Your task to perform on an android device: create a new album in the google photos Image 0: 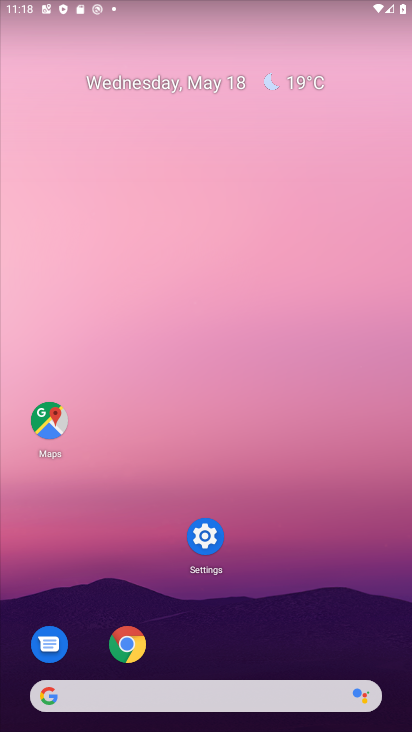
Step 0: drag from (321, 589) to (322, 126)
Your task to perform on an android device: create a new album in the google photos Image 1: 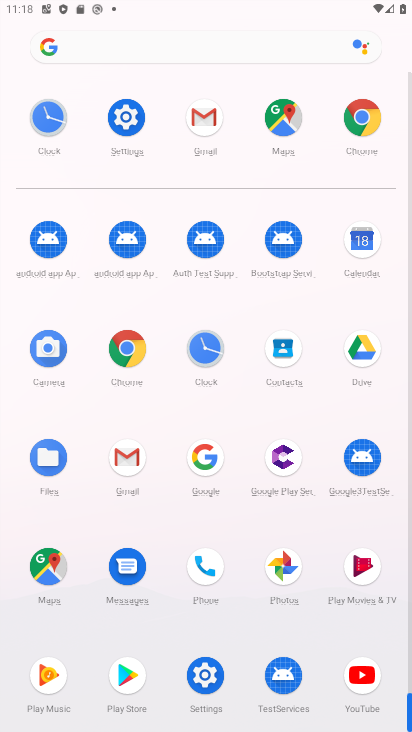
Step 1: click (294, 571)
Your task to perform on an android device: create a new album in the google photos Image 2: 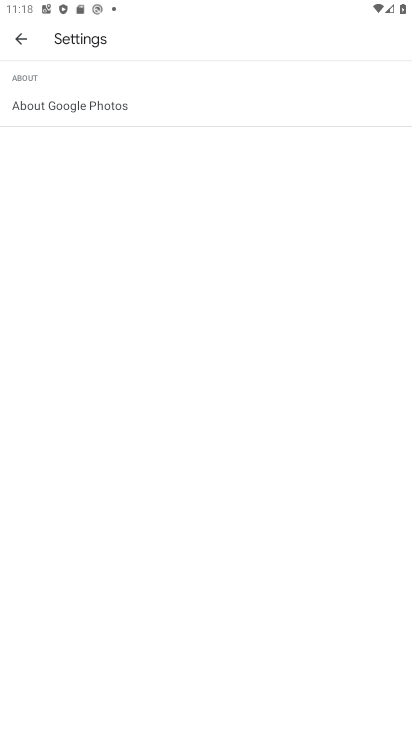
Step 2: click (29, 42)
Your task to perform on an android device: create a new album in the google photos Image 3: 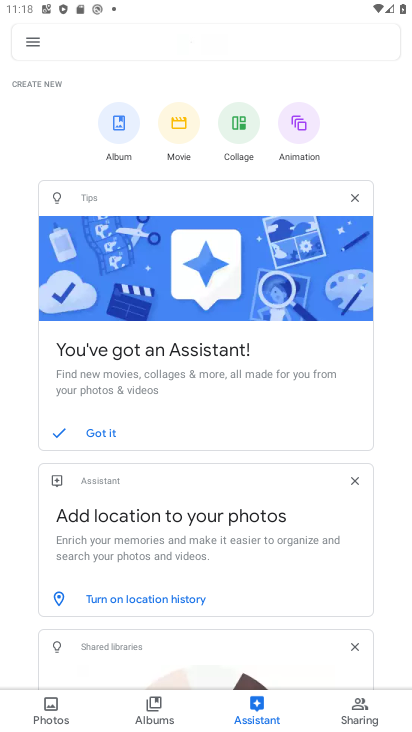
Step 3: click (35, 48)
Your task to perform on an android device: create a new album in the google photos Image 4: 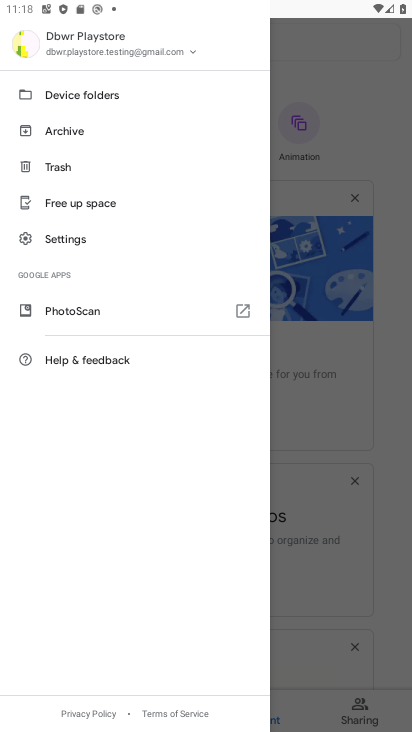
Step 4: click (356, 289)
Your task to perform on an android device: create a new album in the google photos Image 5: 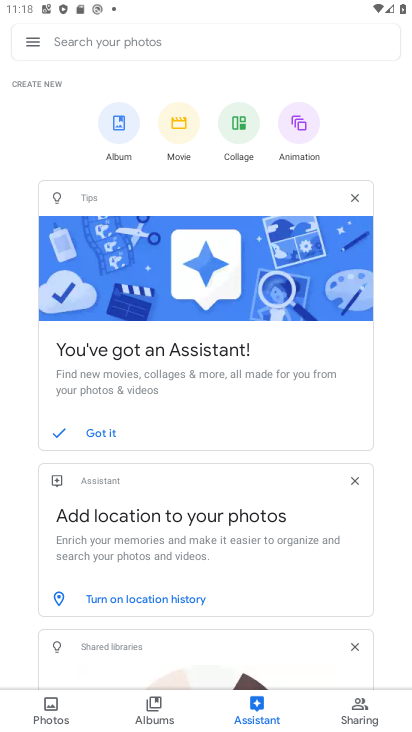
Step 5: click (152, 713)
Your task to perform on an android device: create a new album in the google photos Image 6: 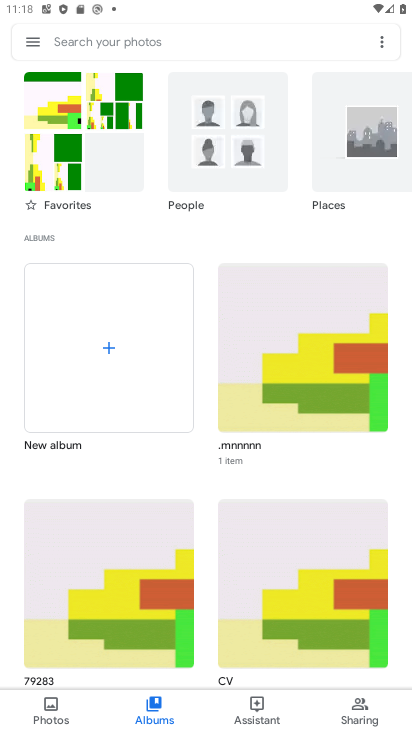
Step 6: click (108, 392)
Your task to perform on an android device: create a new album in the google photos Image 7: 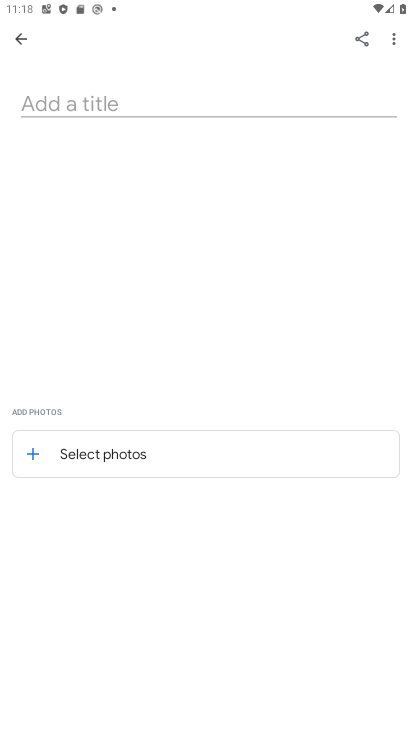
Step 7: click (241, 108)
Your task to perform on an android device: create a new album in the google photos Image 8: 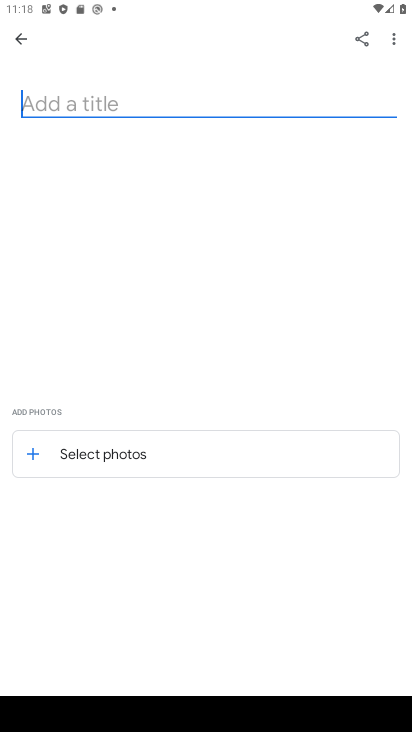
Step 8: type "janebhidoyaro"
Your task to perform on an android device: create a new album in the google photos Image 9: 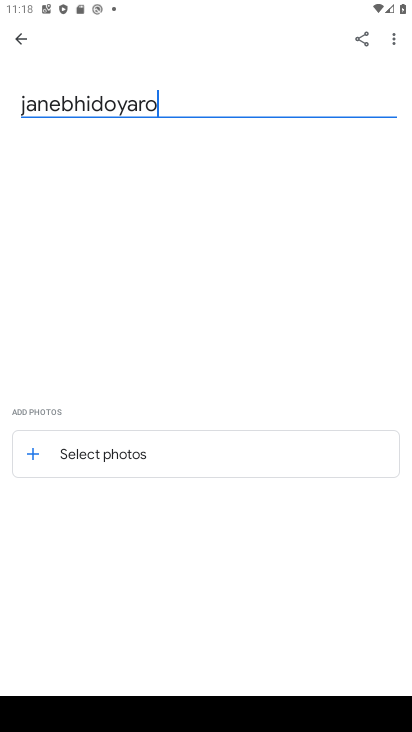
Step 9: type ""
Your task to perform on an android device: create a new album in the google photos Image 10: 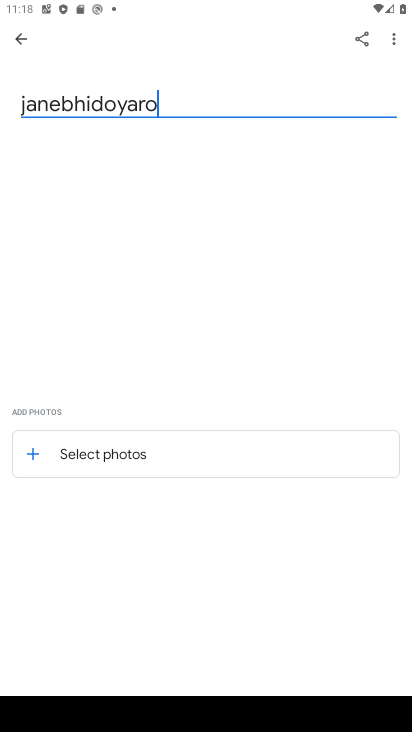
Step 10: click (185, 458)
Your task to perform on an android device: create a new album in the google photos Image 11: 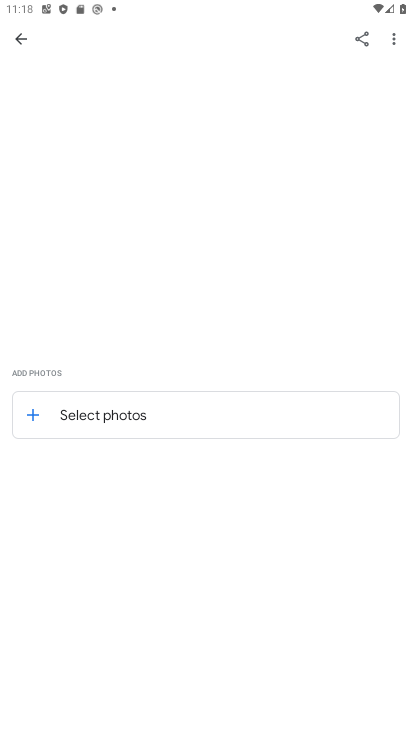
Step 11: click (100, 413)
Your task to perform on an android device: create a new album in the google photos Image 12: 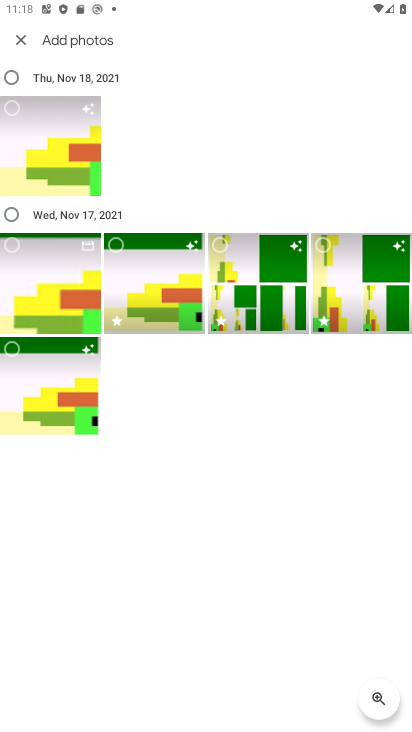
Step 12: click (57, 158)
Your task to perform on an android device: create a new album in the google photos Image 13: 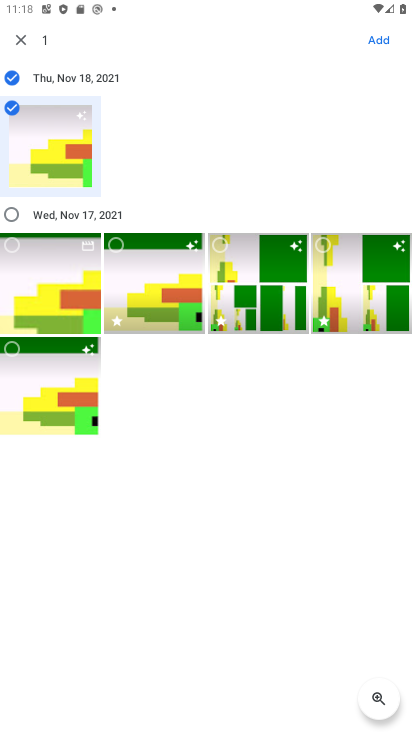
Step 13: click (377, 40)
Your task to perform on an android device: create a new album in the google photos Image 14: 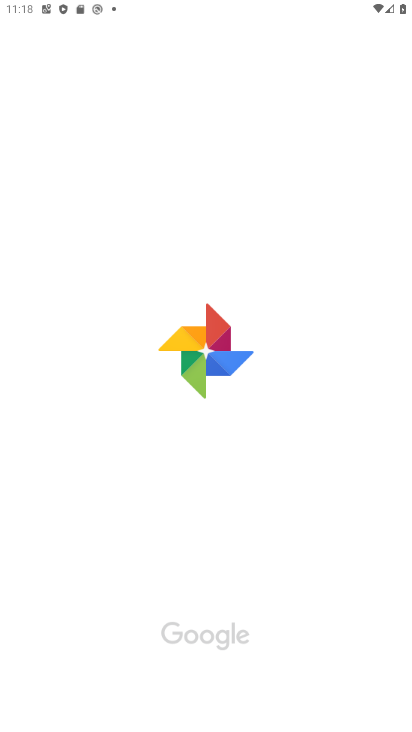
Step 14: task complete